Your task to perform on an android device: Open Chrome and go to settings Image 0: 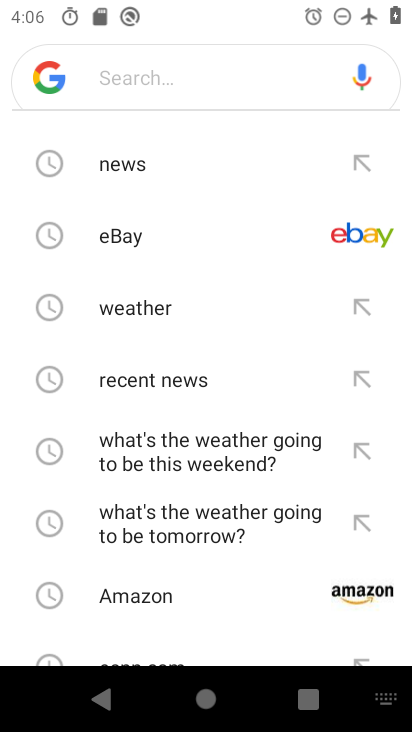
Step 0: press home button
Your task to perform on an android device: Open Chrome and go to settings Image 1: 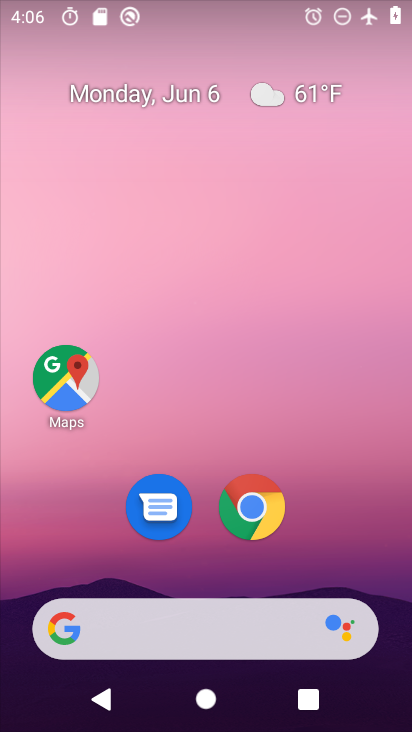
Step 1: click (260, 497)
Your task to perform on an android device: Open Chrome and go to settings Image 2: 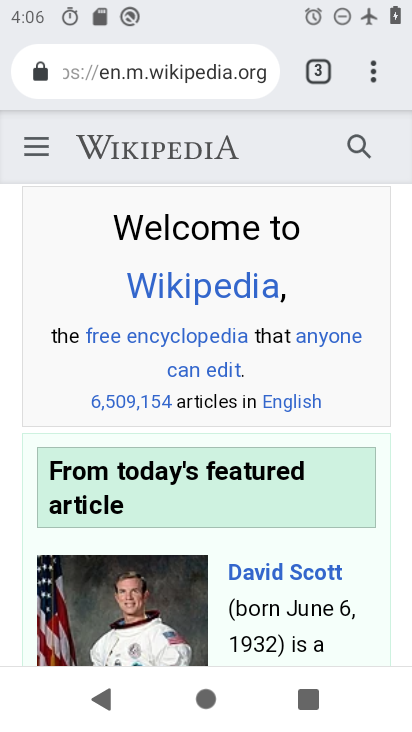
Step 2: click (370, 71)
Your task to perform on an android device: Open Chrome and go to settings Image 3: 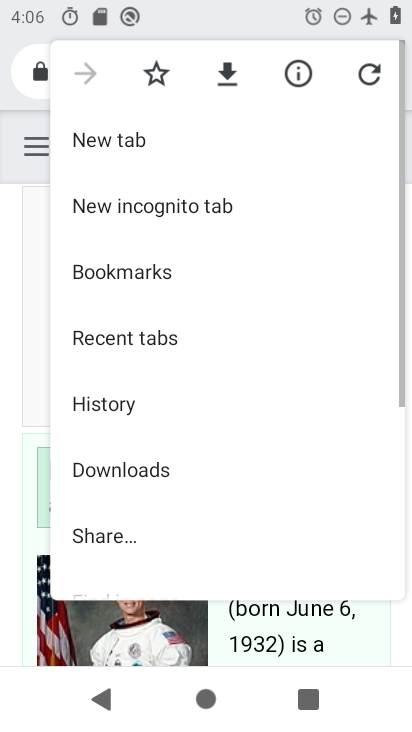
Step 3: drag from (214, 484) to (233, 212)
Your task to perform on an android device: Open Chrome and go to settings Image 4: 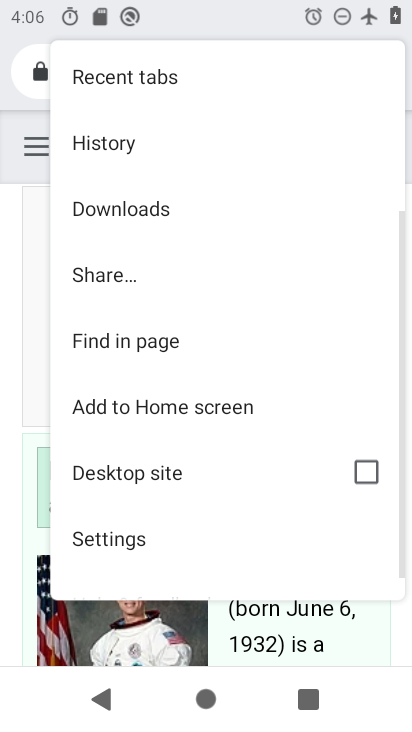
Step 4: click (156, 535)
Your task to perform on an android device: Open Chrome and go to settings Image 5: 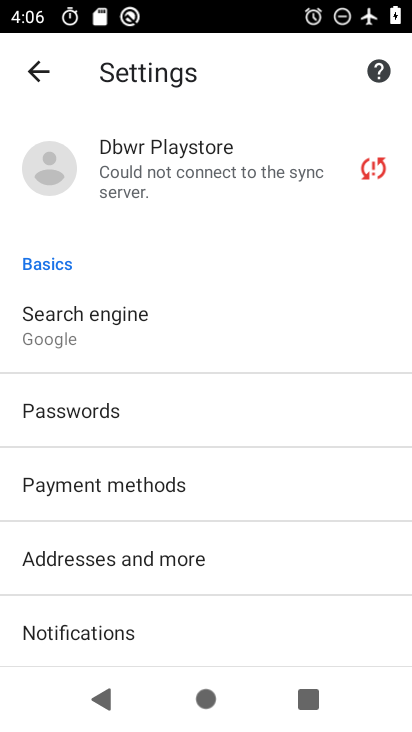
Step 5: task complete